Your task to perform on an android device: Open Maps and search for coffee Image 0: 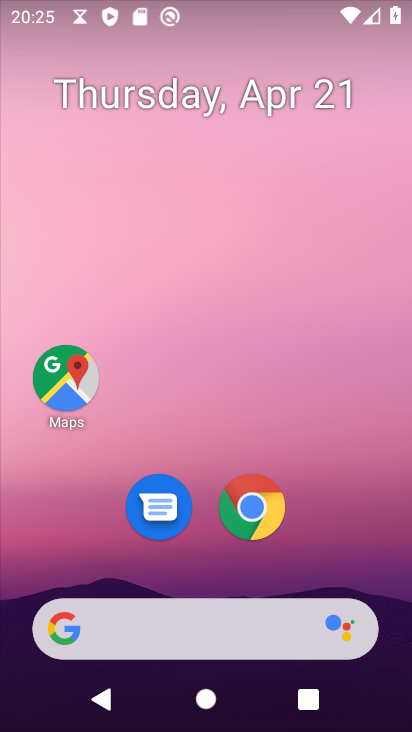
Step 0: click (60, 371)
Your task to perform on an android device: Open Maps and search for coffee Image 1: 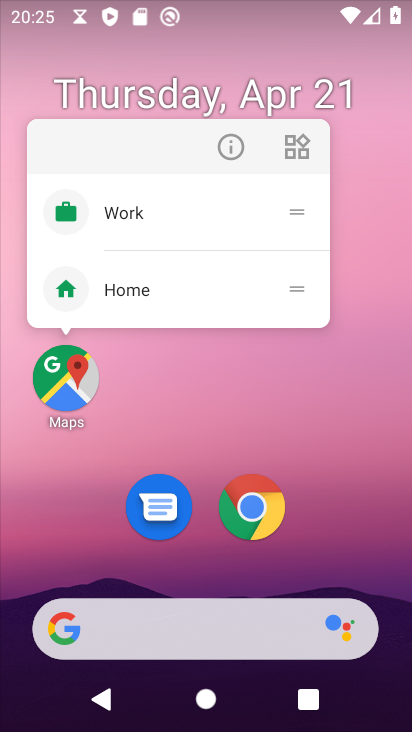
Step 1: click (63, 387)
Your task to perform on an android device: Open Maps and search for coffee Image 2: 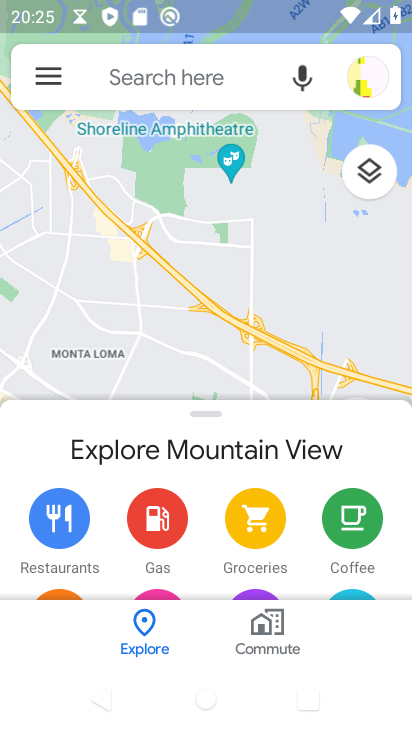
Step 2: click (156, 79)
Your task to perform on an android device: Open Maps and search for coffee Image 3: 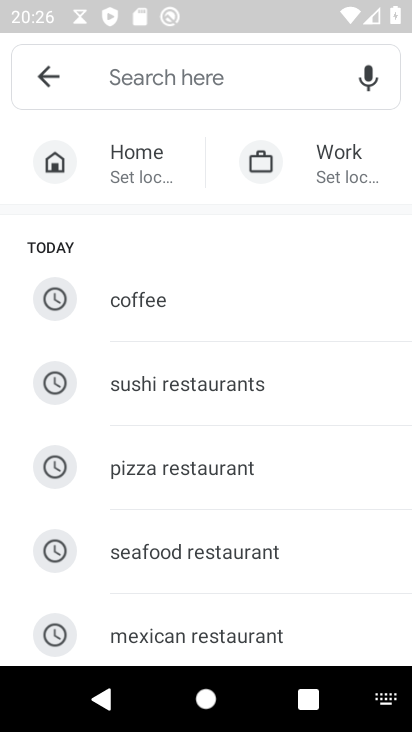
Step 3: click (187, 312)
Your task to perform on an android device: Open Maps and search for coffee Image 4: 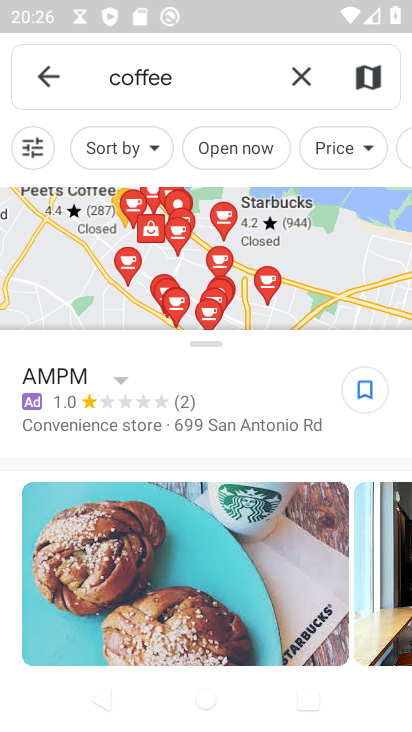
Step 4: task complete